Your task to perform on an android device: install app "Airtel Thanks" Image 0: 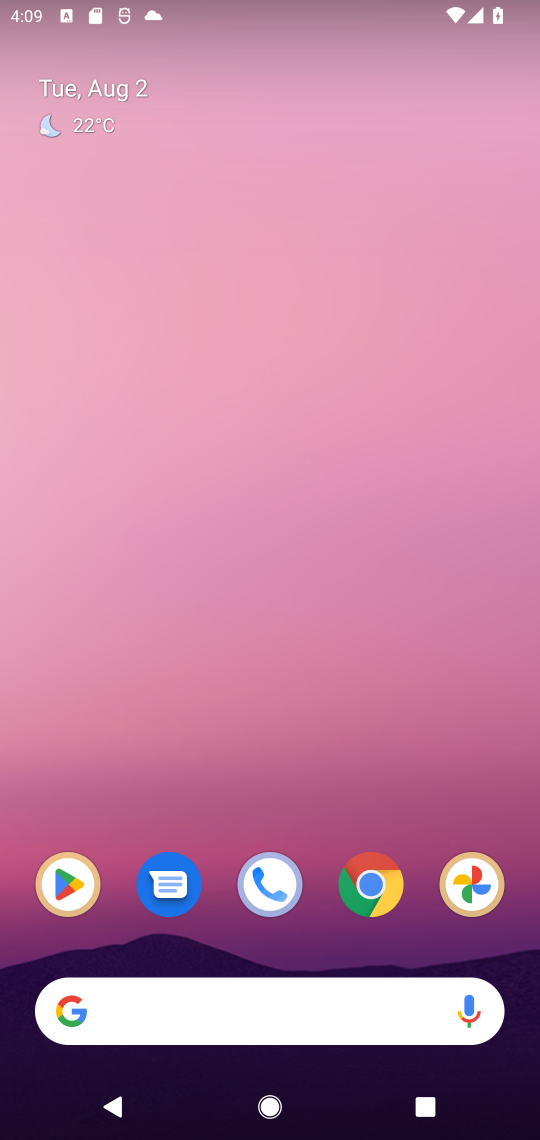
Step 0: drag from (267, 823) to (277, 131)
Your task to perform on an android device: install app "Airtel Thanks" Image 1: 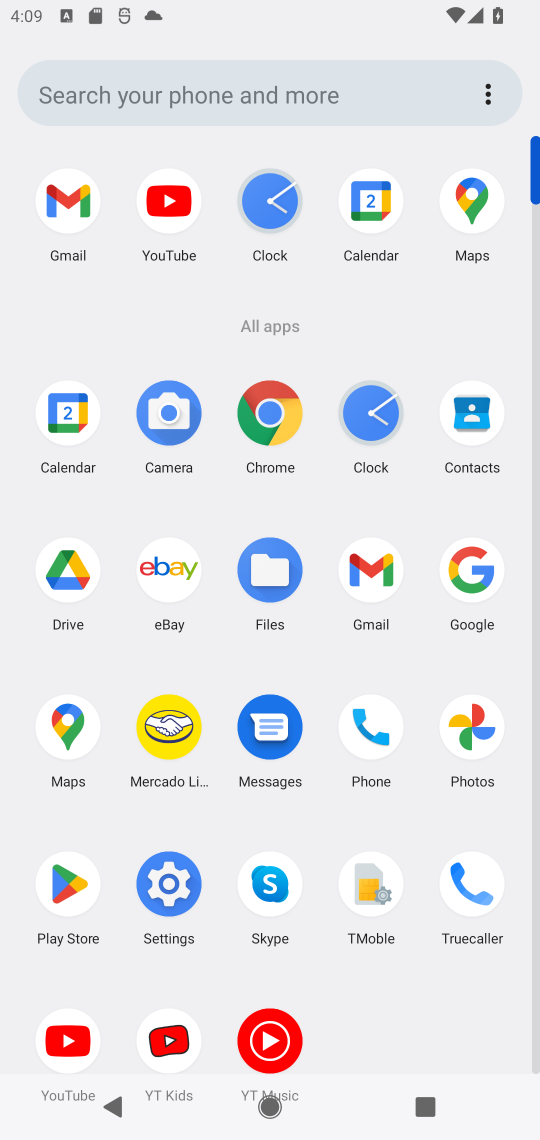
Step 1: click (54, 889)
Your task to perform on an android device: install app "Airtel Thanks" Image 2: 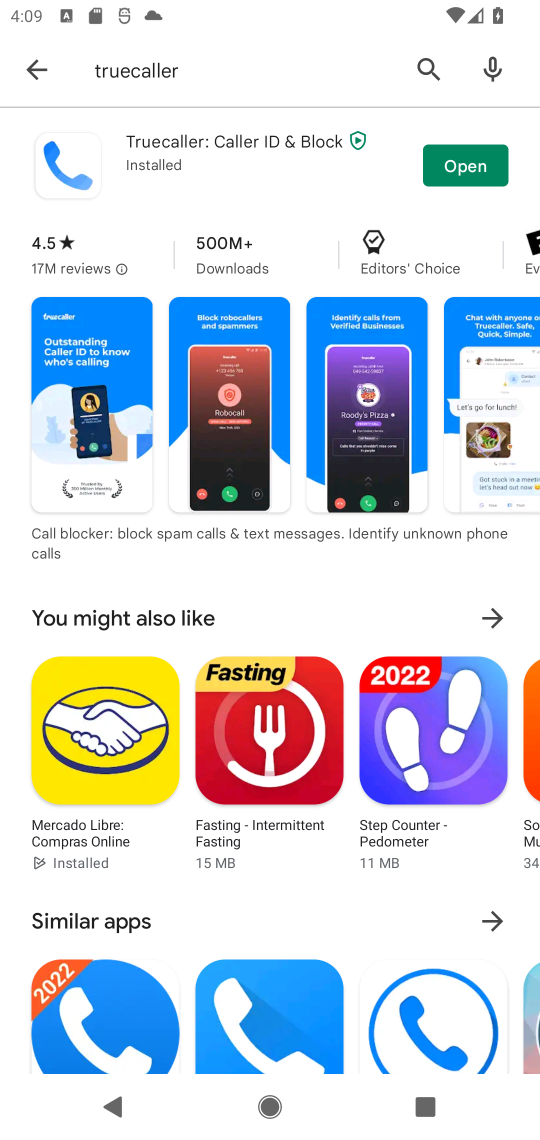
Step 2: click (40, 121)
Your task to perform on an android device: install app "Airtel Thanks" Image 3: 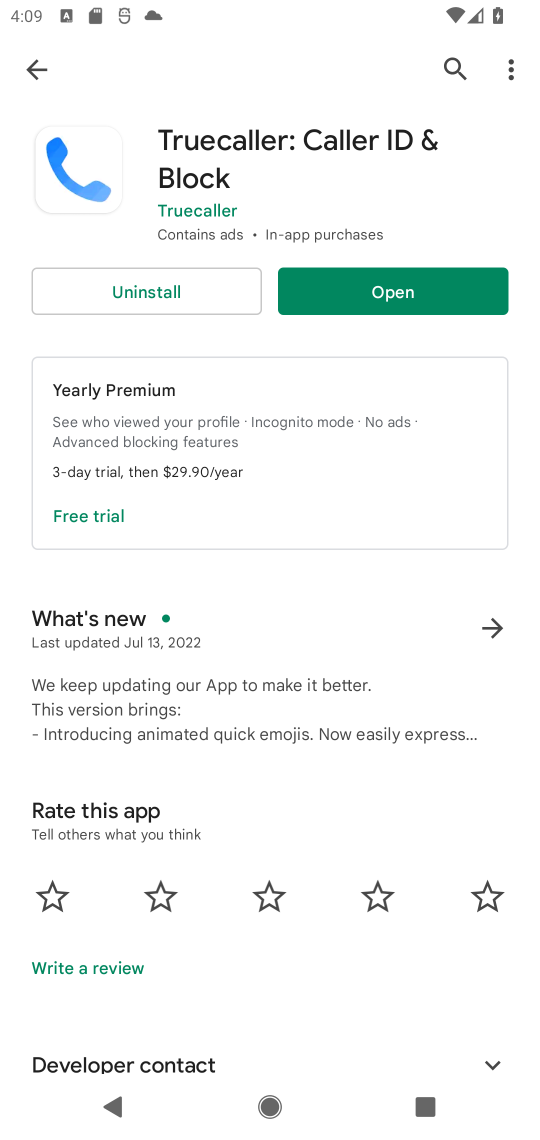
Step 3: click (39, 62)
Your task to perform on an android device: install app "Airtel Thanks" Image 4: 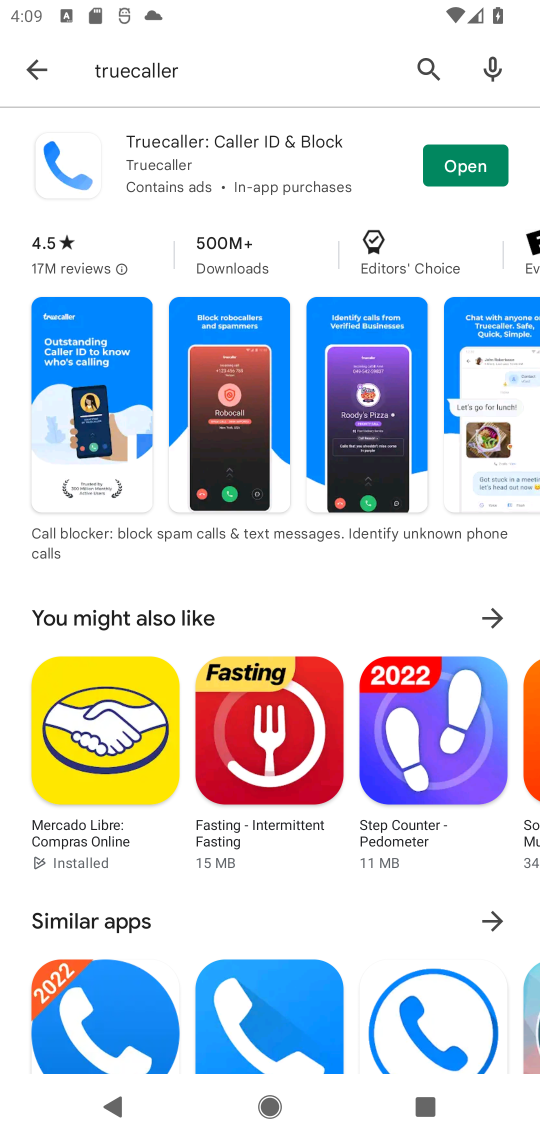
Step 4: click (33, 81)
Your task to perform on an android device: install app "Airtel Thanks" Image 5: 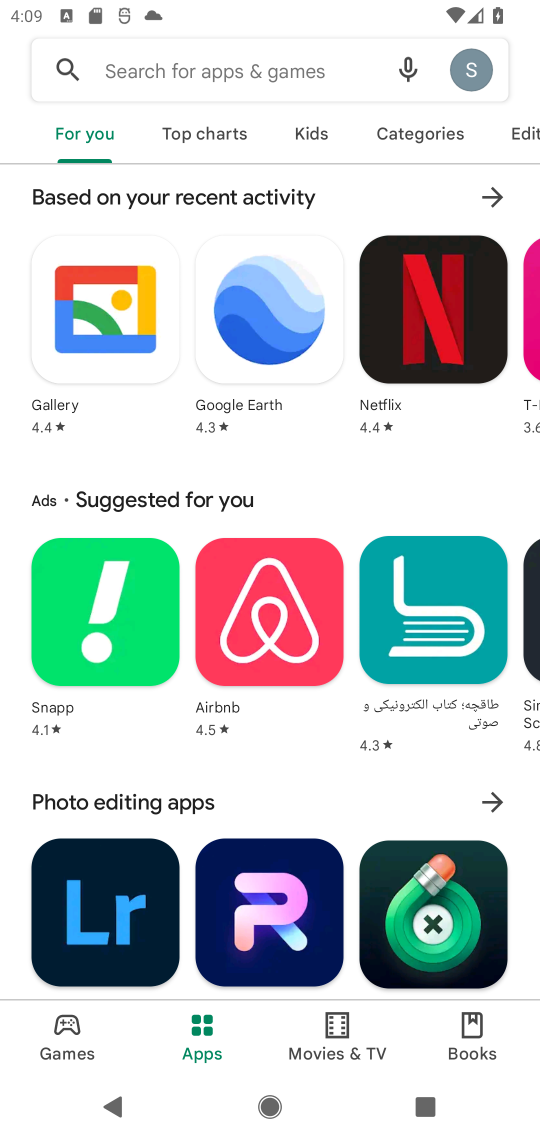
Step 5: click (161, 81)
Your task to perform on an android device: install app "Airtel Thanks" Image 6: 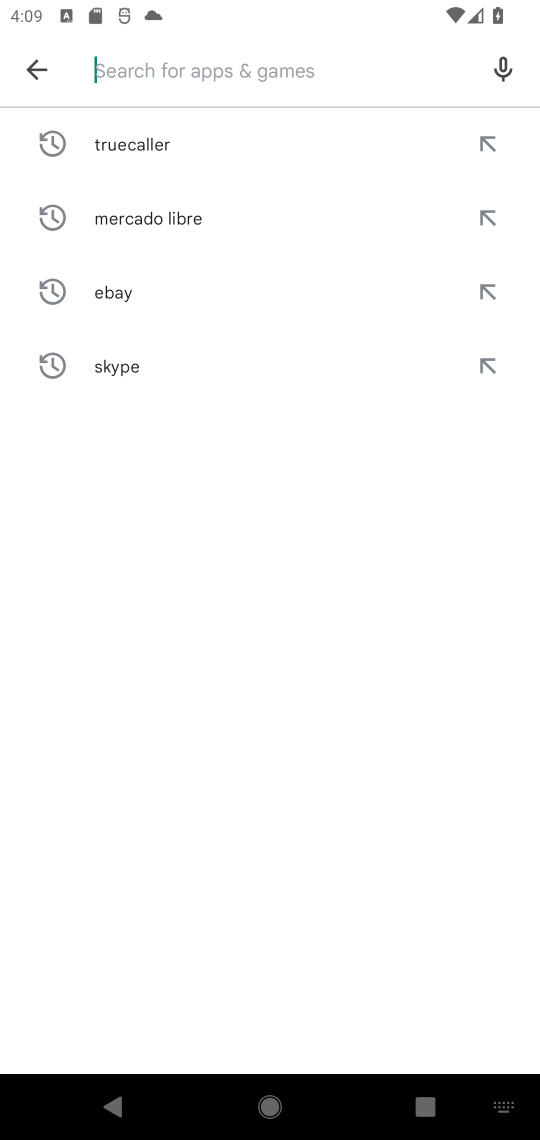
Step 6: type "Airtel Thanks"
Your task to perform on an android device: install app "Airtel Thanks" Image 7: 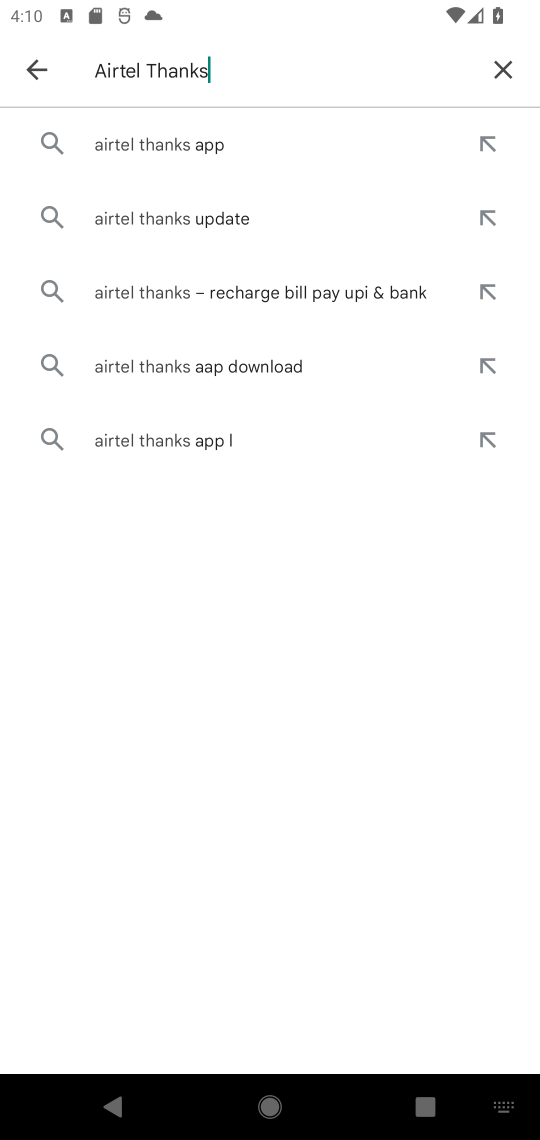
Step 7: click (133, 150)
Your task to perform on an android device: install app "Airtel Thanks" Image 8: 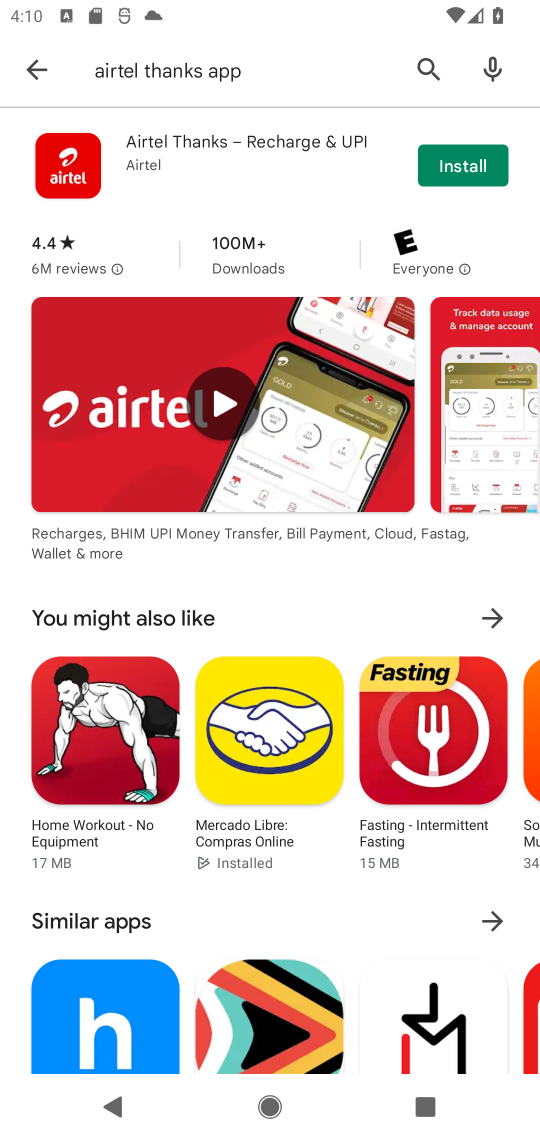
Step 8: click (458, 165)
Your task to perform on an android device: install app "Airtel Thanks" Image 9: 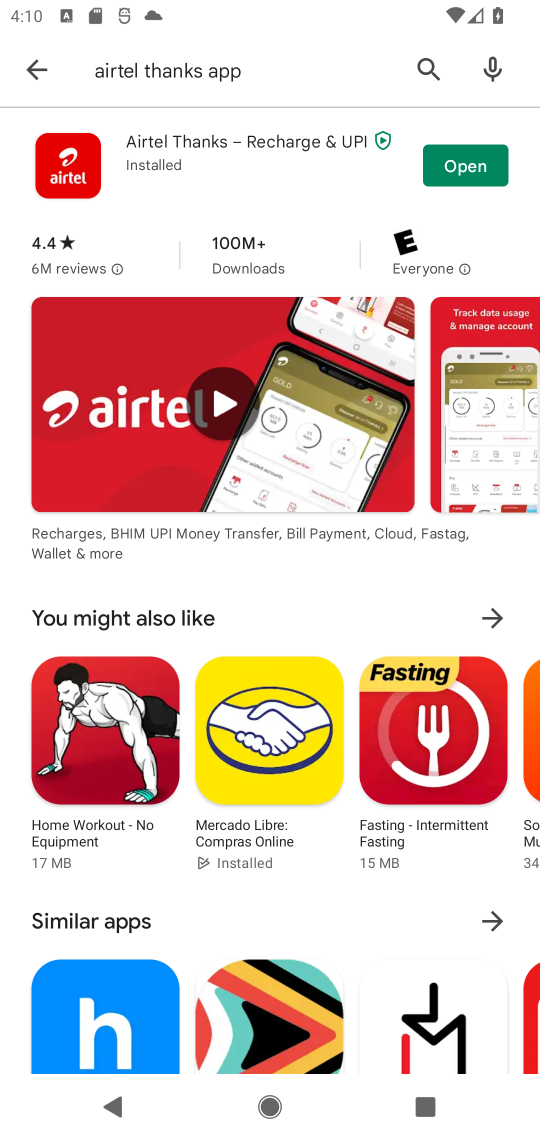
Step 9: click (465, 179)
Your task to perform on an android device: install app "Airtel Thanks" Image 10: 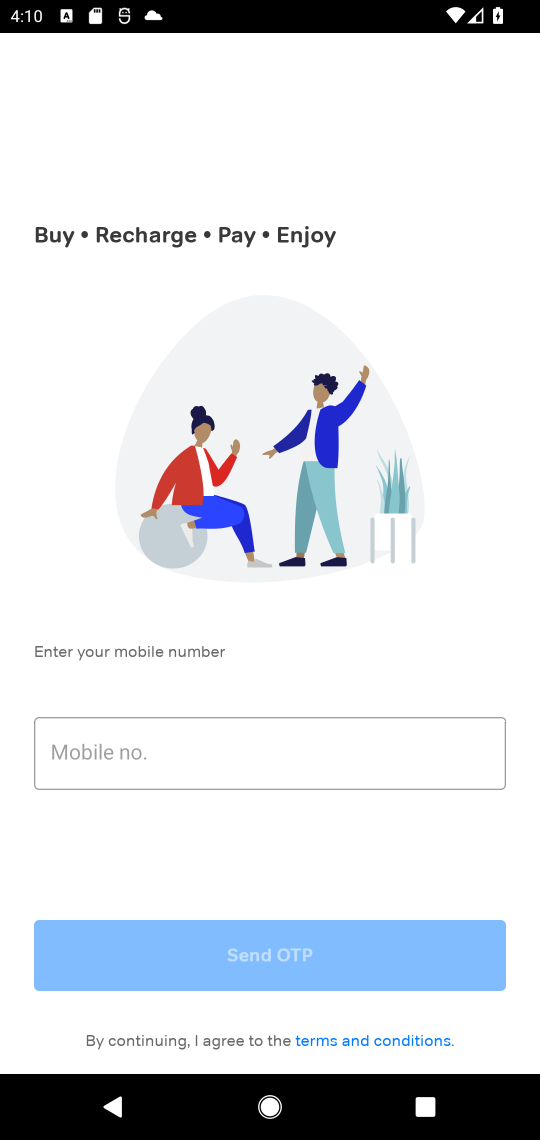
Step 10: task complete